Your task to perform on an android device: Open location settings Image 0: 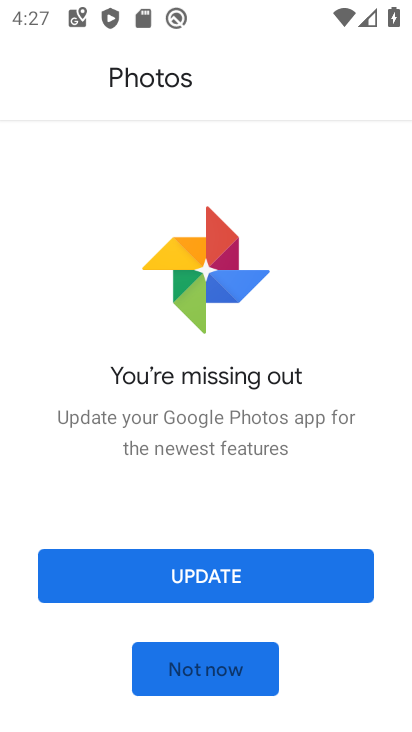
Step 0: press back button
Your task to perform on an android device: Open location settings Image 1: 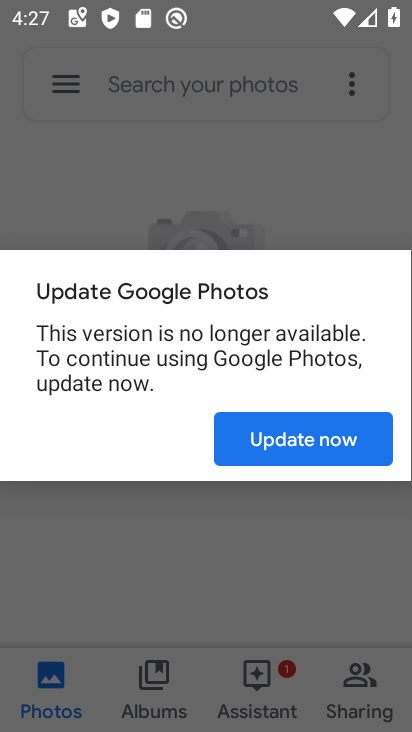
Step 1: press back button
Your task to perform on an android device: Open location settings Image 2: 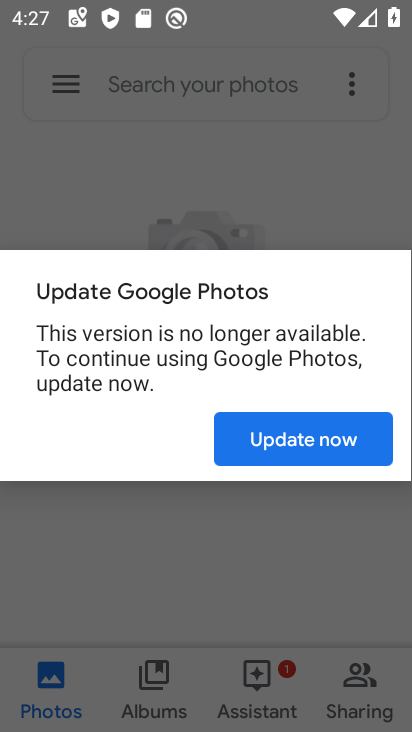
Step 2: press home button
Your task to perform on an android device: Open location settings Image 3: 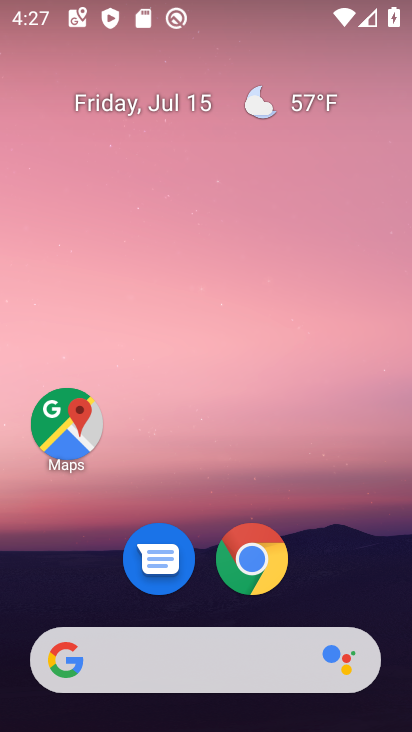
Step 3: drag from (60, 580) to (213, 70)
Your task to perform on an android device: Open location settings Image 4: 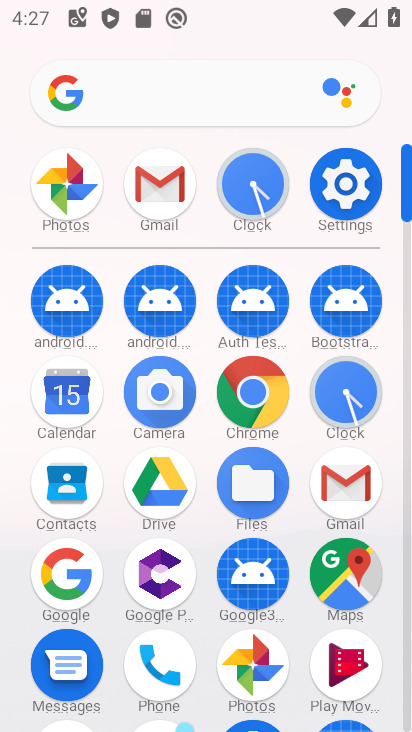
Step 4: click (348, 174)
Your task to perform on an android device: Open location settings Image 5: 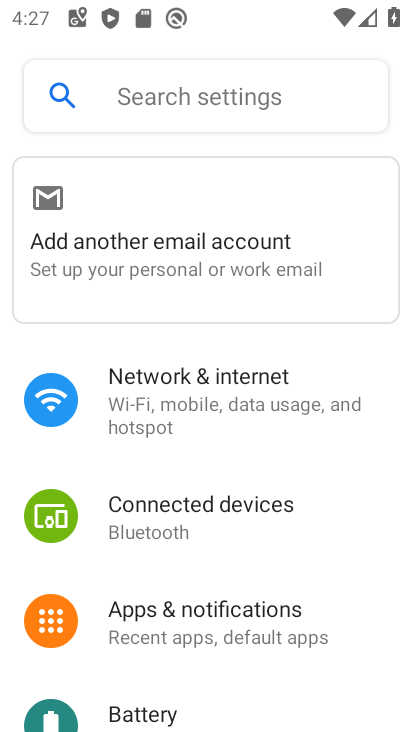
Step 5: drag from (172, 667) to (334, 35)
Your task to perform on an android device: Open location settings Image 6: 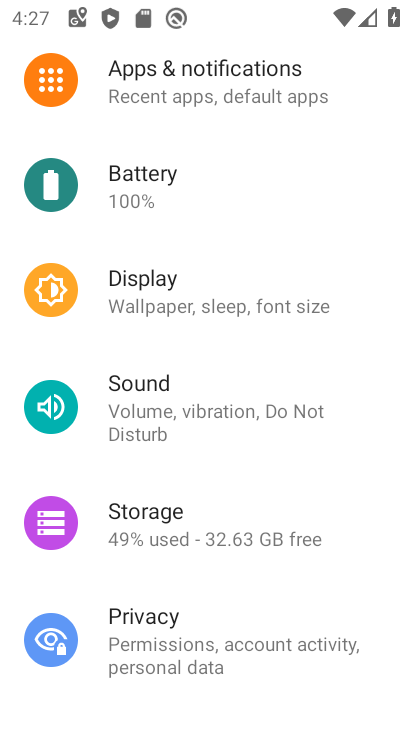
Step 6: drag from (191, 634) to (294, 150)
Your task to perform on an android device: Open location settings Image 7: 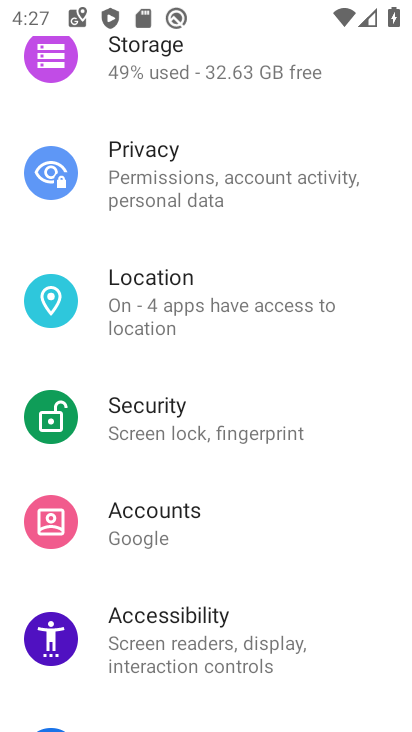
Step 7: click (155, 301)
Your task to perform on an android device: Open location settings Image 8: 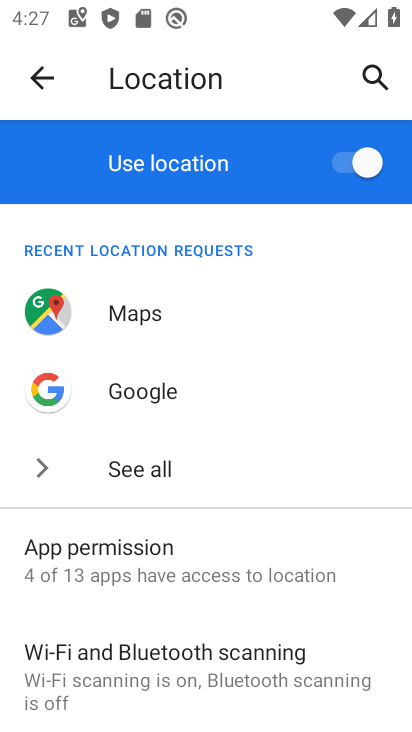
Step 8: task complete